Your task to perform on an android device: Open ESPN.com Image 0: 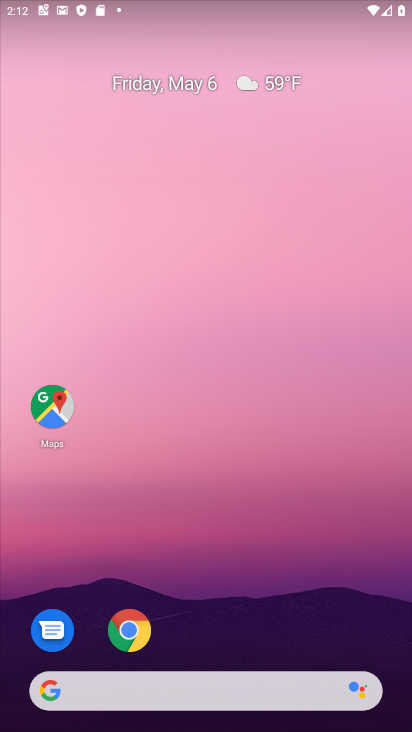
Step 0: click (196, 653)
Your task to perform on an android device: Open ESPN.com Image 1: 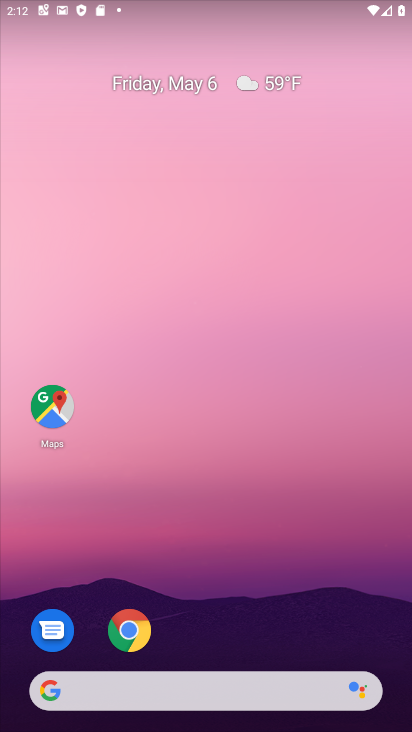
Step 1: click (133, 621)
Your task to perform on an android device: Open ESPN.com Image 2: 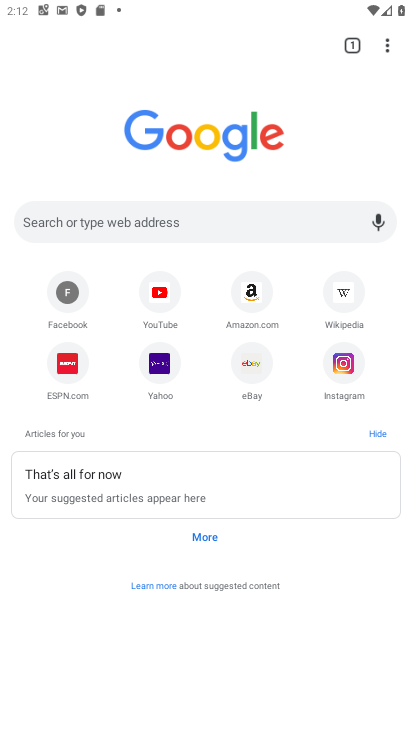
Step 2: click (391, 40)
Your task to perform on an android device: Open ESPN.com Image 3: 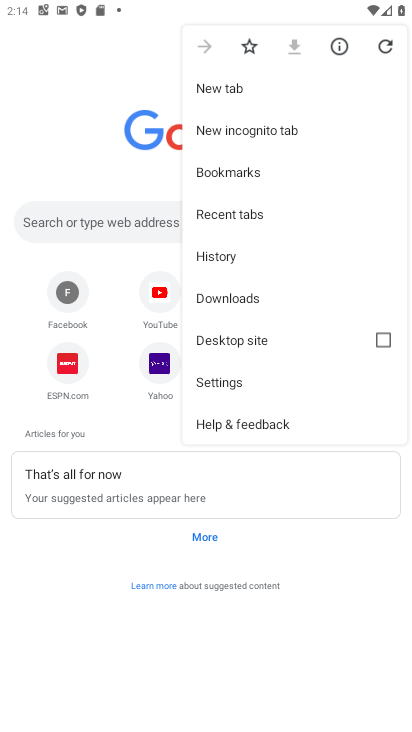
Step 3: click (35, 686)
Your task to perform on an android device: Open ESPN.com Image 4: 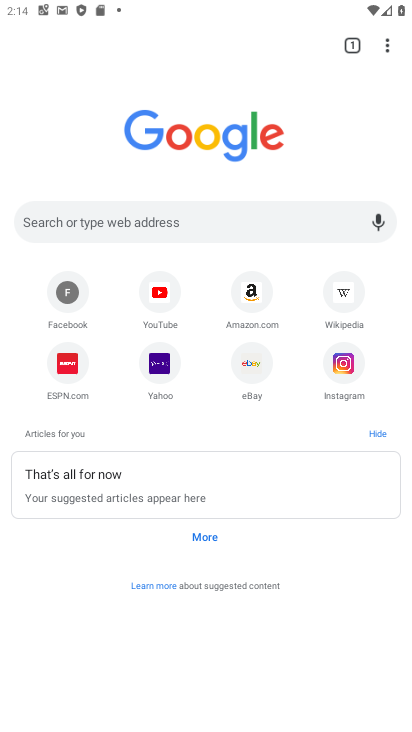
Step 4: click (53, 371)
Your task to perform on an android device: Open ESPN.com Image 5: 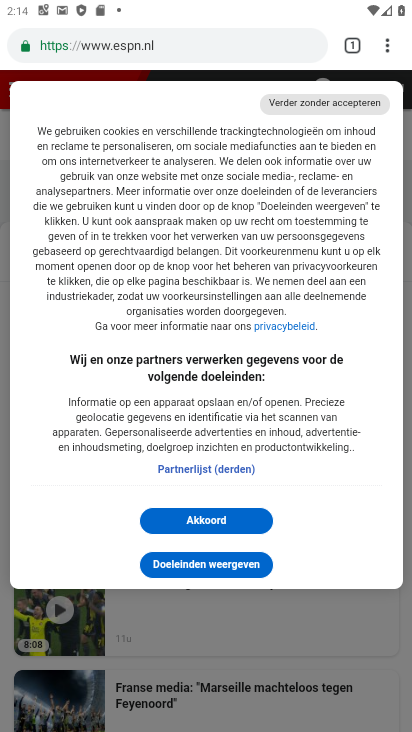
Step 5: click (173, 517)
Your task to perform on an android device: Open ESPN.com Image 6: 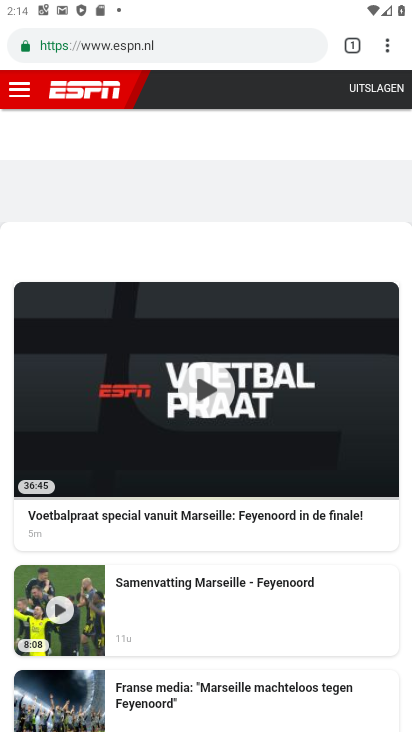
Step 6: task complete